Your task to perform on an android device: read, delete, or share a saved page in the chrome app Image 0: 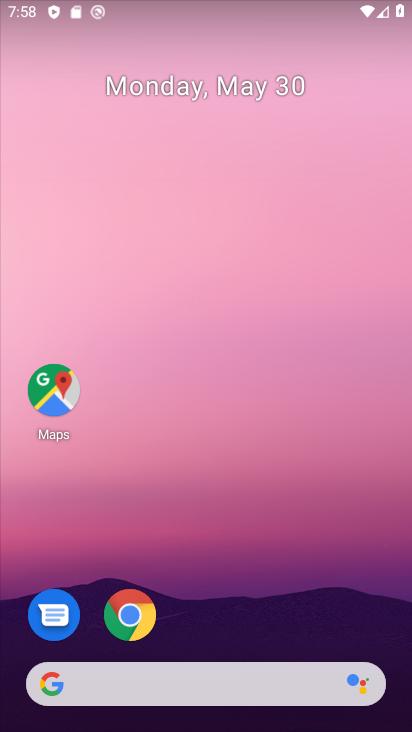
Step 0: press home button
Your task to perform on an android device: read, delete, or share a saved page in the chrome app Image 1: 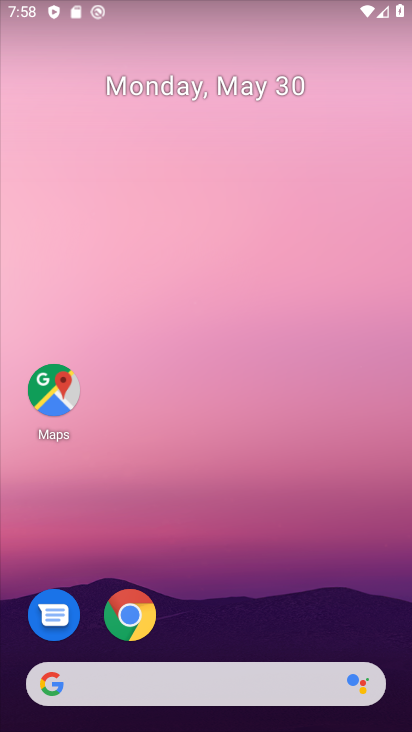
Step 1: click (131, 608)
Your task to perform on an android device: read, delete, or share a saved page in the chrome app Image 2: 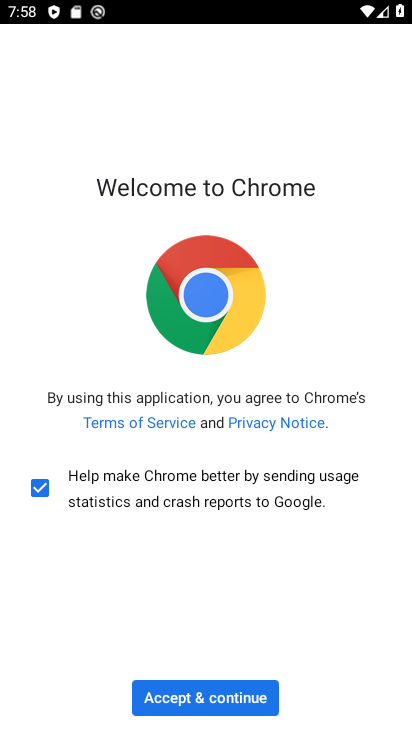
Step 2: click (198, 698)
Your task to perform on an android device: read, delete, or share a saved page in the chrome app Image 3: 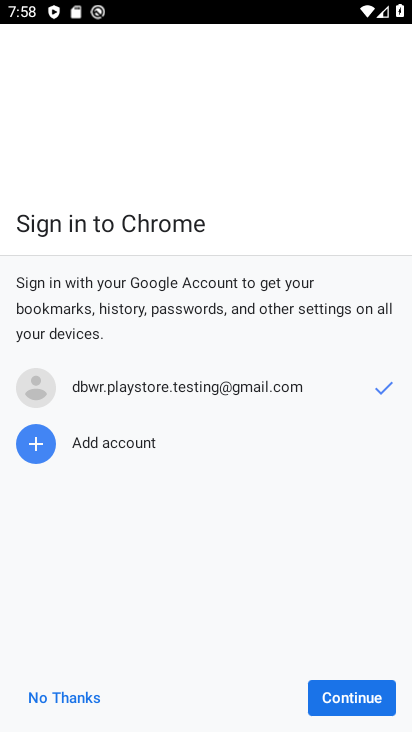
Step 3: click (355, 699)
Your task to perform on an android device: read, delete, or share a saved page in the chrome app Image 4: 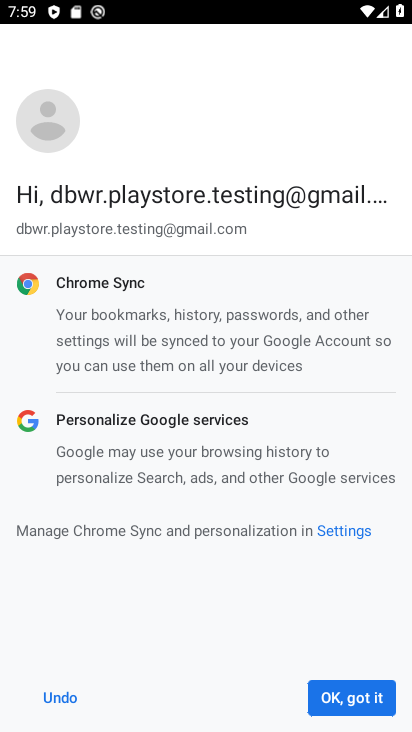
Step 4: click (355, 699)
Your task to perform on an android device: read, delete, or share a saved page in the chrome app Image 5: 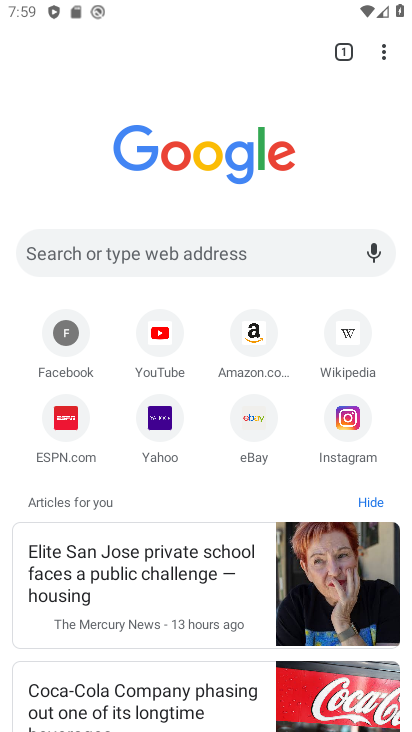
Step 5: click (384, 46)
Your task to perform on an android device: read, delete, or share a saved page in the chrome app Image 6: 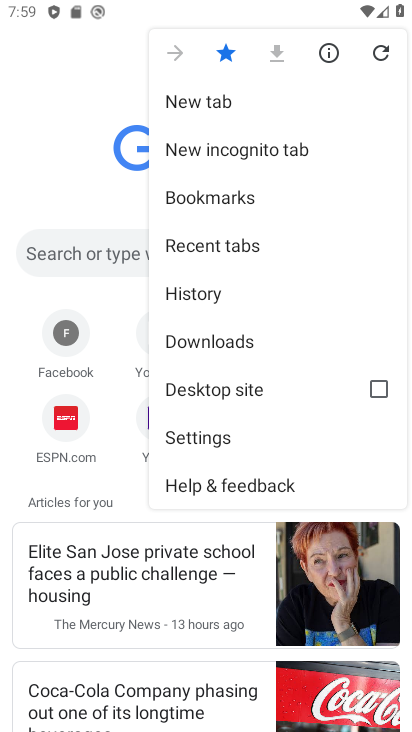
Step 6: click (257, 343)
Your task to perform on an android device: read, delete, or share a saved page in the chrome app Image 7: 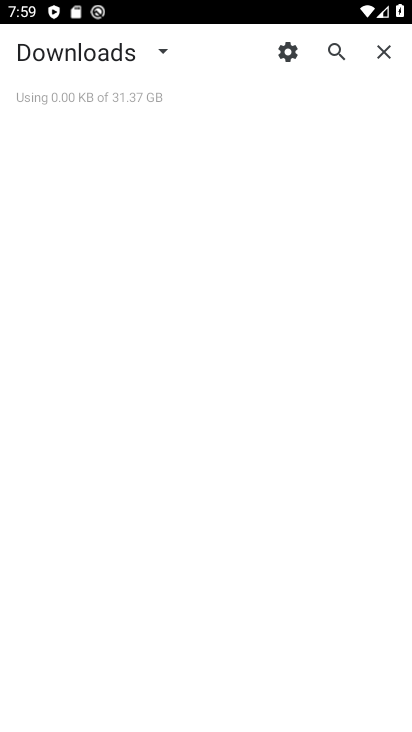
Step 7: task complete